Your task to perform on an android device: Open sound settings Image 0: 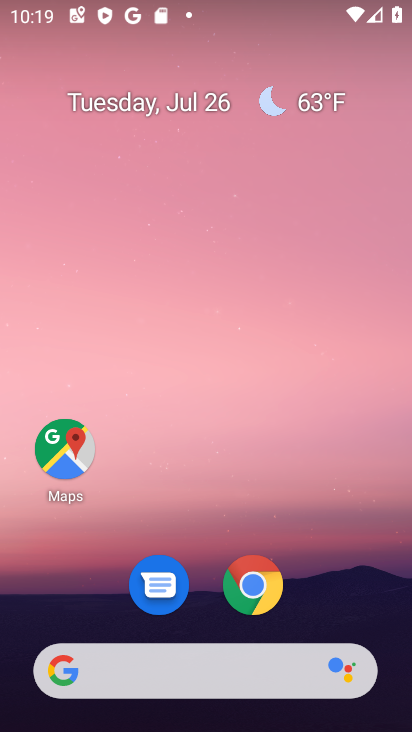
Step 0: drag from (333, 560) to (312, 33)
Your task to perform on an android device: Open sound settings Image 1: 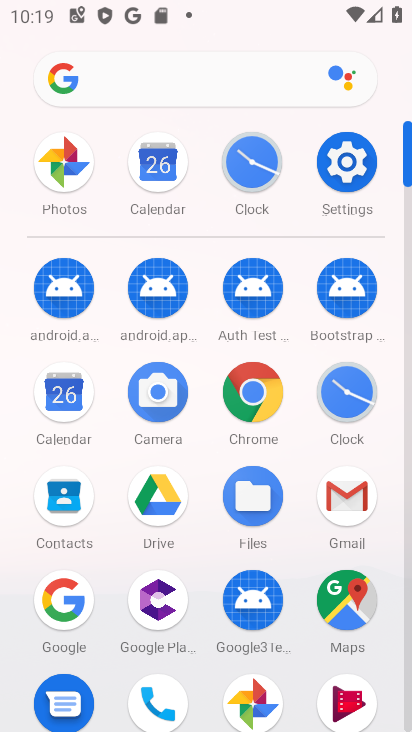
Step 1: click (344, 158)
Your task to perform on an android device: Open sound settings Image 2: 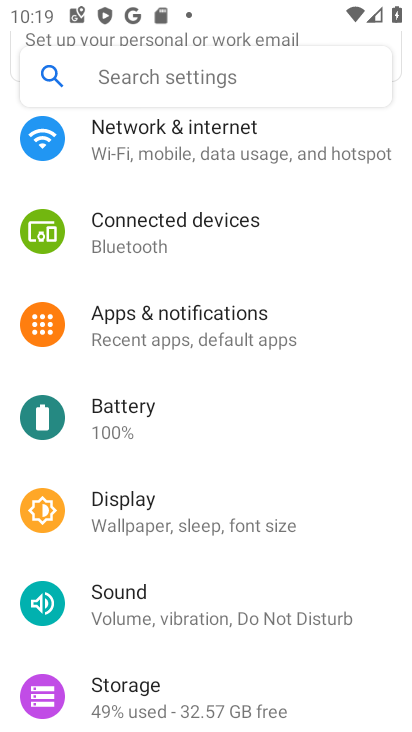
Step 2: click (140, 606)
Your task to perform on an android device: Open sound settings Image 3: 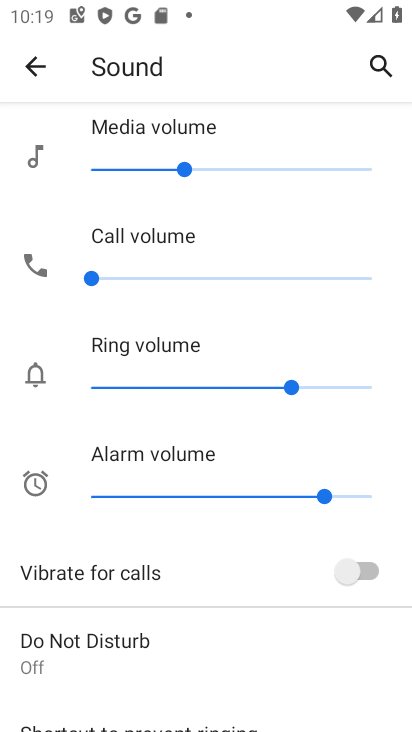
Step 3: task complete